Your task to perform on an android device: turn on the 12-hour format for clock Image 0: 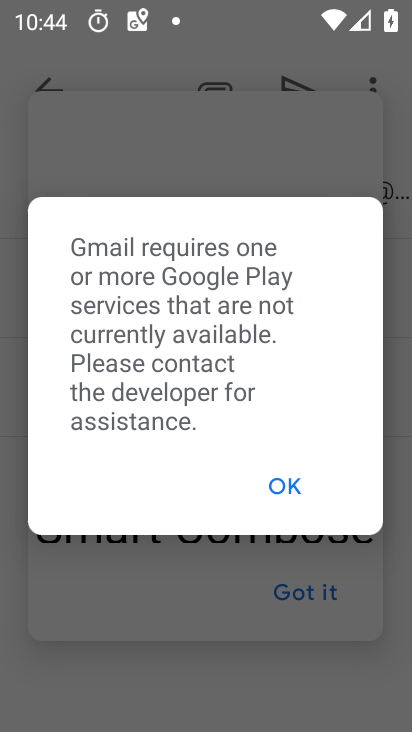
Step 0: drag from (0, 0) to (264, 497)
Your task to perform on an android device: turn on the 12-hour format for clock Image 1: 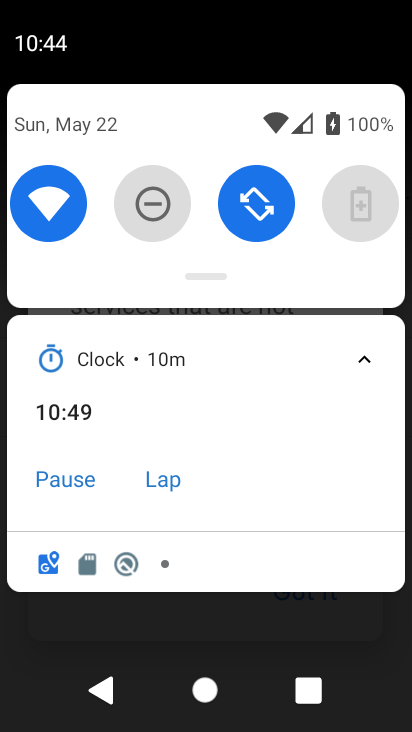
Step 1: press back button
Your task to perform on an android device: turn on the 12-hour format for clock Image 2: 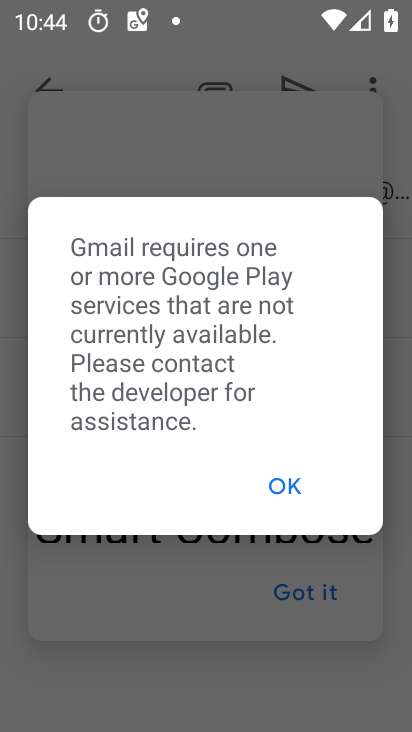
Step 2: press back button
Your task to perform on an android device: turn on the 12-hour format for clock Image 3: 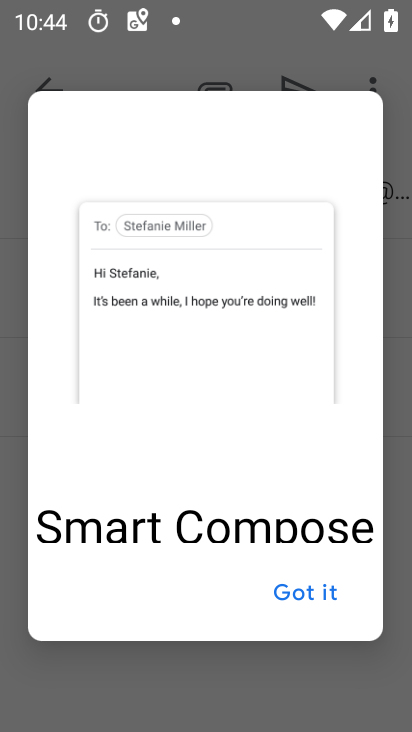
Step 3: press home button
Your task to perform on an android device: turn on the 12-hour format for clock Image 4: 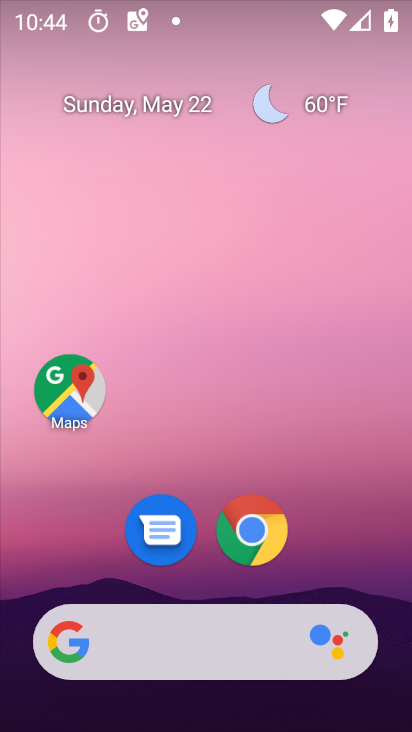
Step 4: drag from (392, 666) to (380, 245)
Your task to perform on an android device: turn on the 12-hour format for clock Image 5: 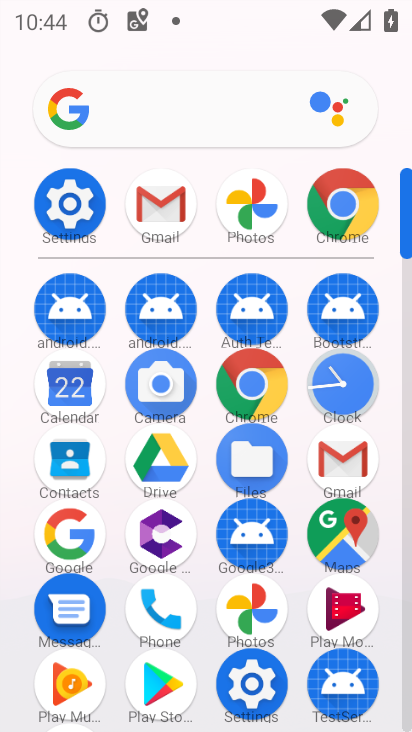
Step 5: click (347, 388)
Your task to perform on an android device: turn on the 12-hour format for clock Image 6: 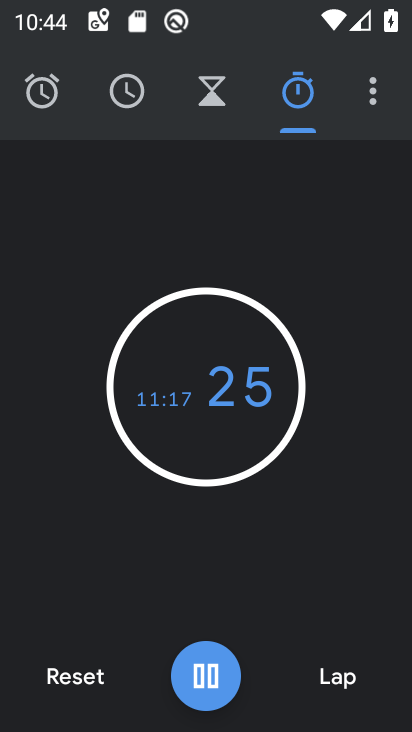
Step 6: click (371, 87)
Your task to perform on an android device: turn on the 12-hour format for clock Image 7: 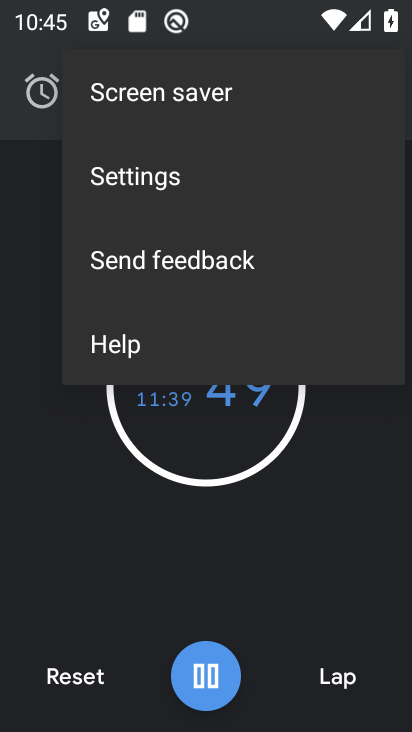
Step 7: click (149, 176)
Your task to perform on an android device: turn on the 12-hour format for clock Image 8: 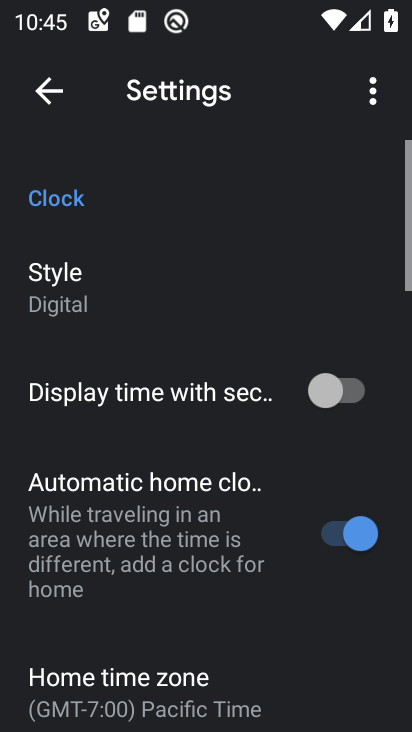
Step 8: task complete